Your task to perform on an android device: Open the calendar app, open the side menu, and click the "Day" option Image 0: 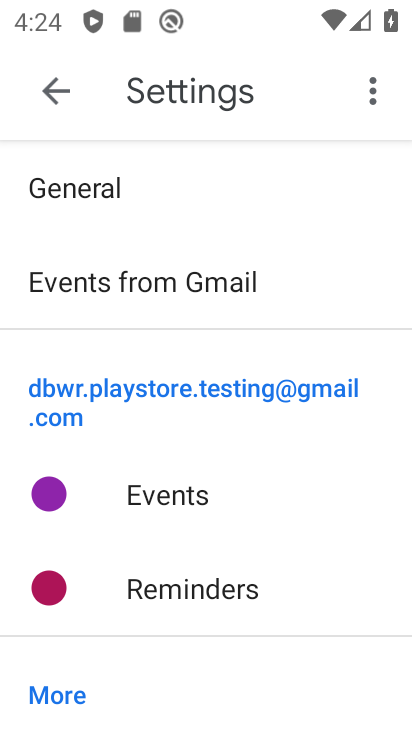
Step 0: press home button
Your task to perform on an android device: Open the calendar app, open the side menu, and click the "Day" option Image 1: 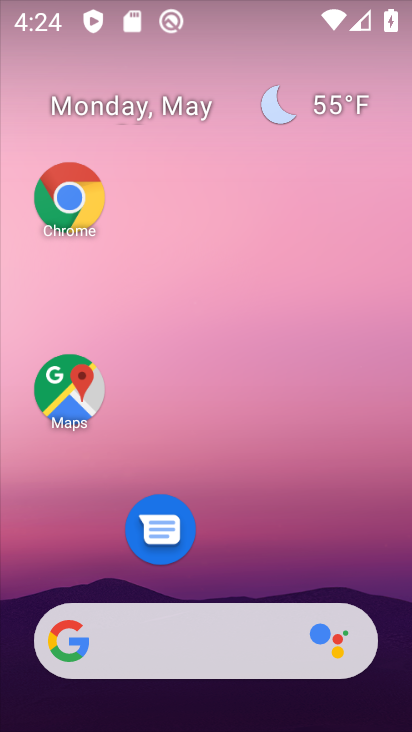
Step 1: drag from (155, 541) to (184, 78)
Your task to perform on an android device: Open the calendar app, open the side menu, and click the "Day" option Image 2: 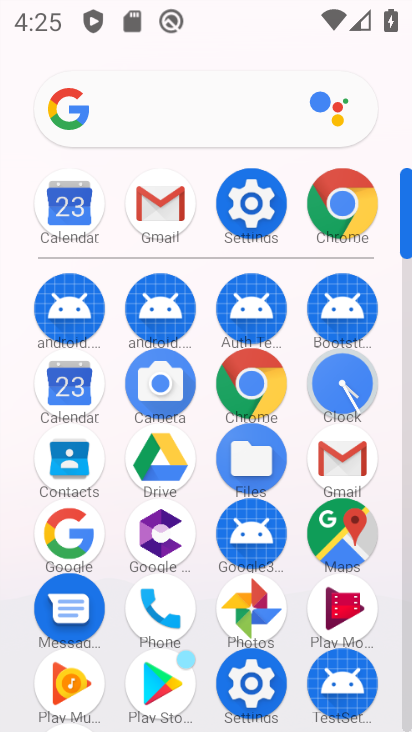
Step 2: click (89, 404)
Your task to perform on an android device: Open the calendar app, open the side menu, and click the "Day" option Image 3: 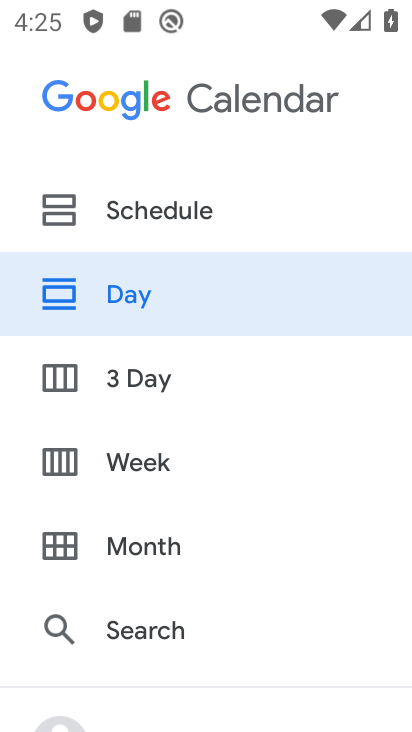
Step 3: click (261, 298)
Your task to perform on an android device: Open the calendar app, open the side menu, and click the "Day" option Image 4: 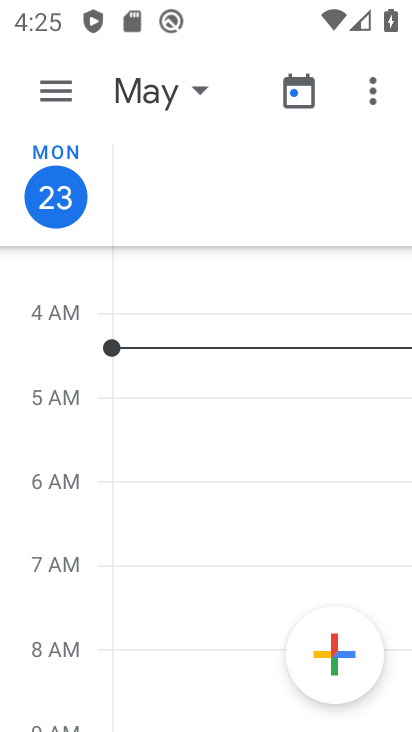
Step 4: task complete